Your task to perform on an android device: Do I have any events today? Image 0: 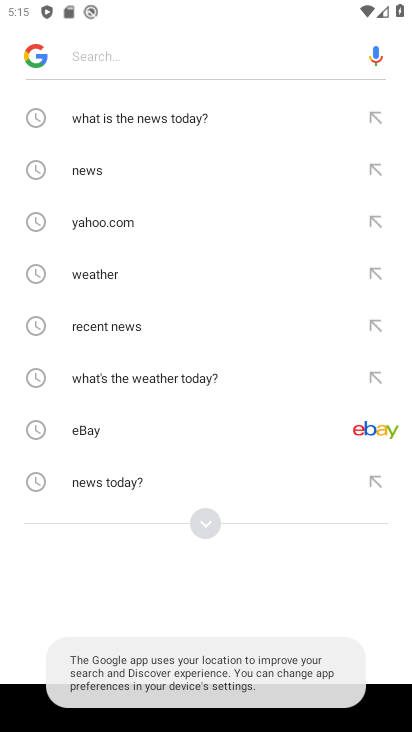
Step 0: press home button
Your task to perform on an android device: Do I have any events today? Image 1: 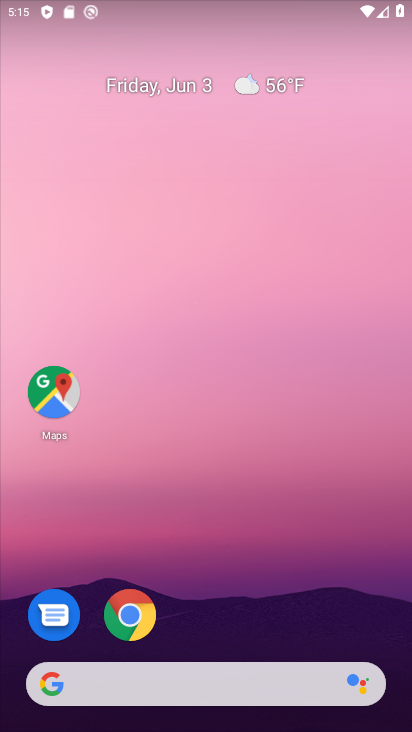
Step 1: drag from (258, 523) to (187, 37)
Your task to perform on an android device: Do I have any events today? Image 2: 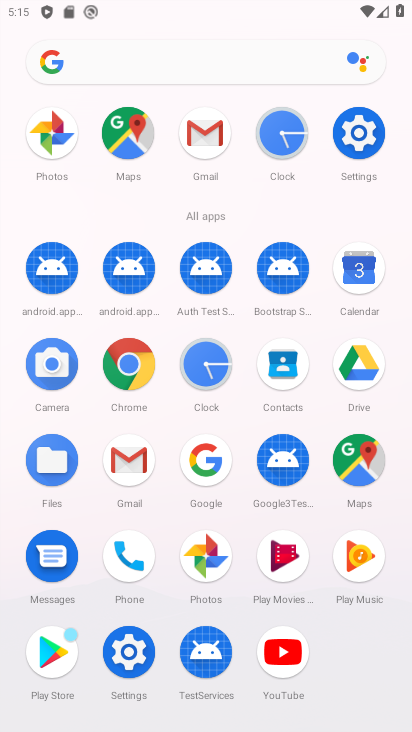
Step 2: click (359, 271)
Your task to perform on an android device: Do I have any events today? Image 3: 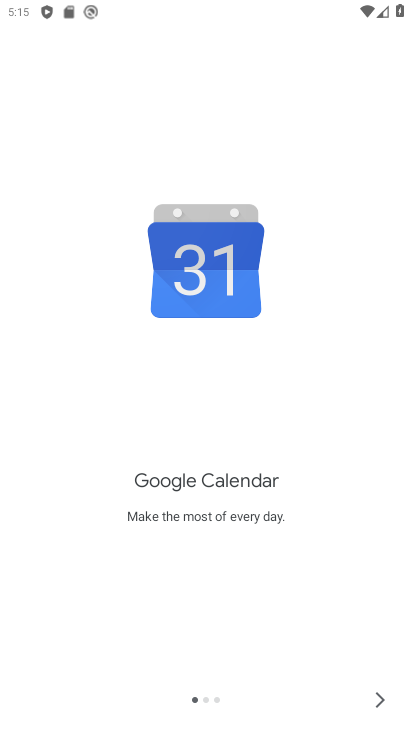
Step 3: click (379, 700)
Your task to perform on an android device: Do I have any events today? Image 4: 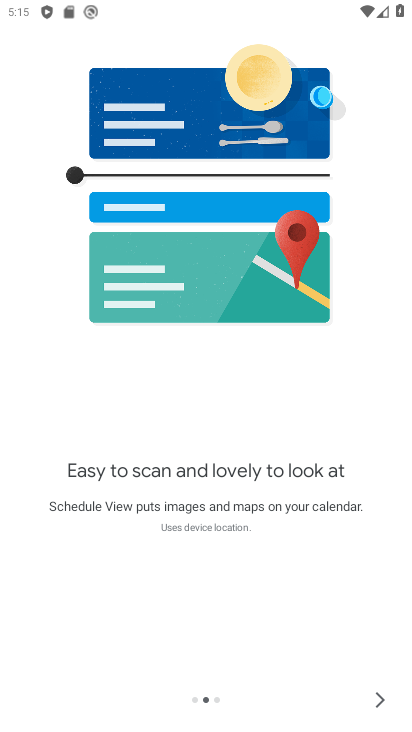
Step 4: click (379, 700)
Your task to perform on an android device: Do I have any events today? Image 5: 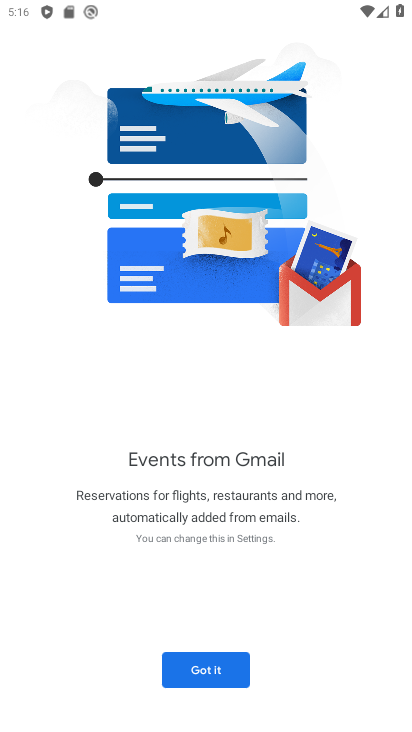
Step 5: click (217, 674)
Your task to perform on an android device: Do I have any events today? Image 6: 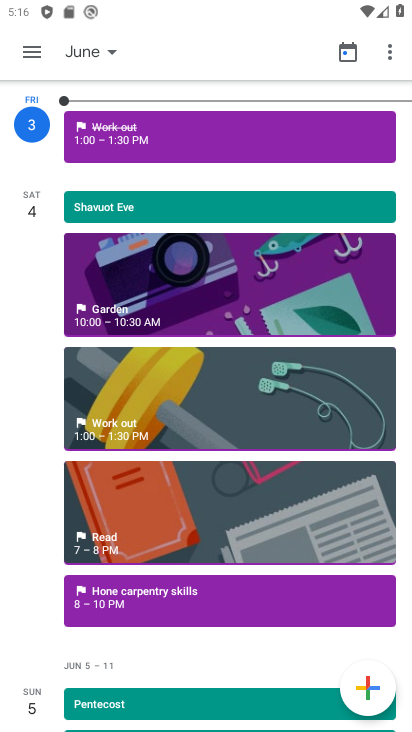
Step 6: click (322, 128)
Your task to perform on an android device: Do I have any events today? Image 7: 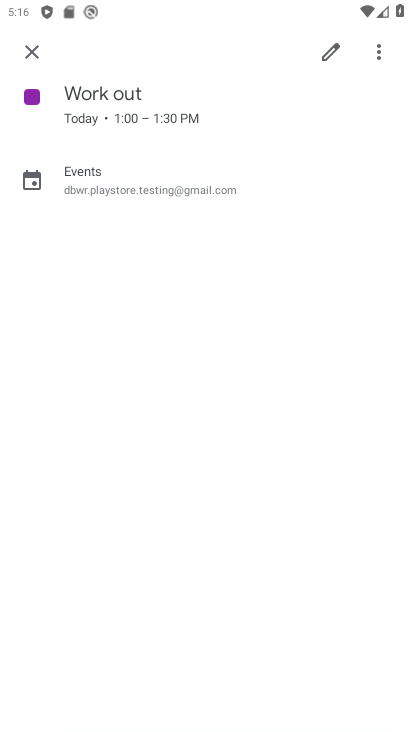
Step 7: task complete